Your task to perform on an android device: turn on javascript in the chrome app Image 0: 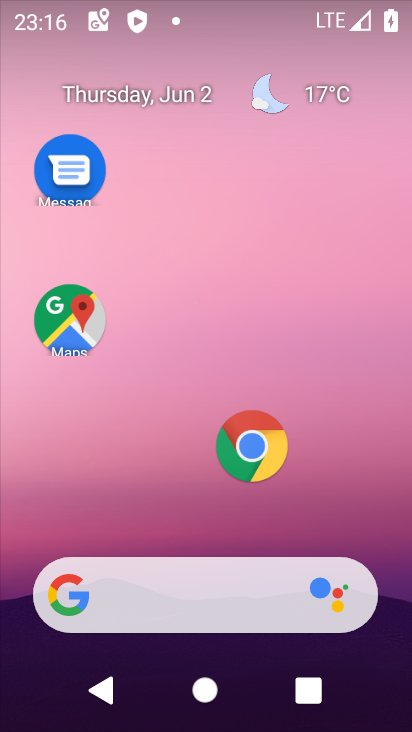
Step 0: drag from (350, 530) to (221, 74)
Your task to perform on an android device: turn on javascript in the chrome app Image 1: 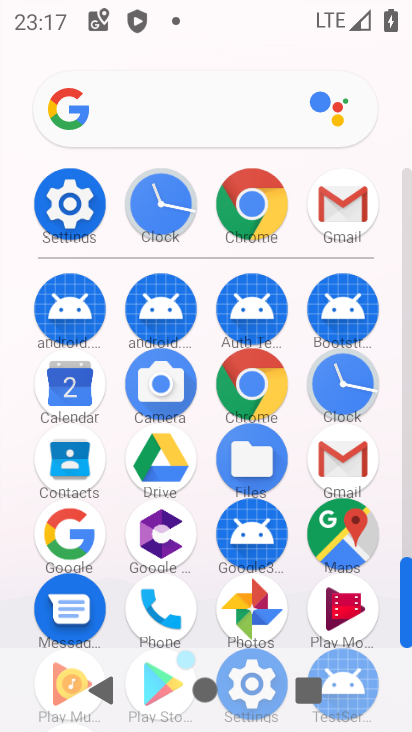
Step 1: click (228, 187)
Your task to perform on an android device: turn on javascript in the chrome app Image 2: 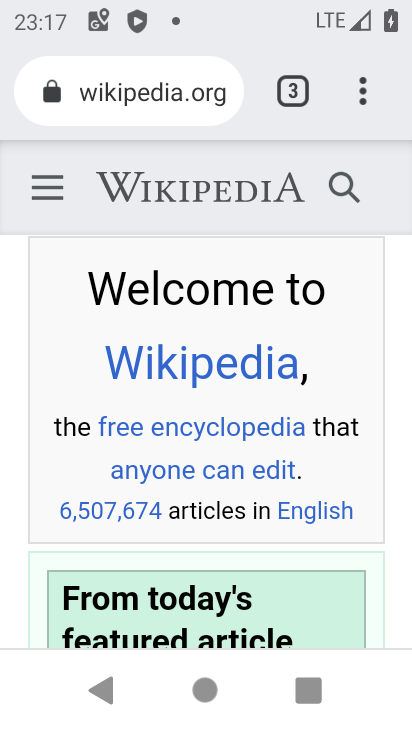
Step 2: drag from (346, 95) to (179, 457)
Your task to perform on an android device: turn on javascript in the chrome app Image 3: 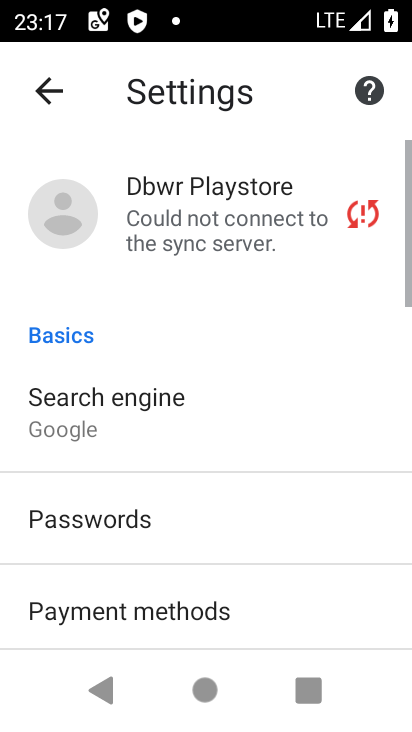
Step 3: drag from (208, 490) to (220, 91)
Your task to perform on an android device: turn on javascript in the chrome app Image 4: 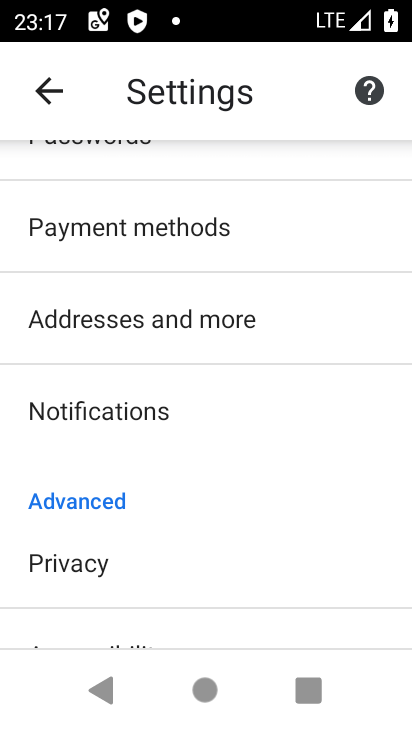
Step 4: drag from (248, 335) to (252, 205)
Your task to perform on an android device: turn on javascript in the chrome app Image 5: 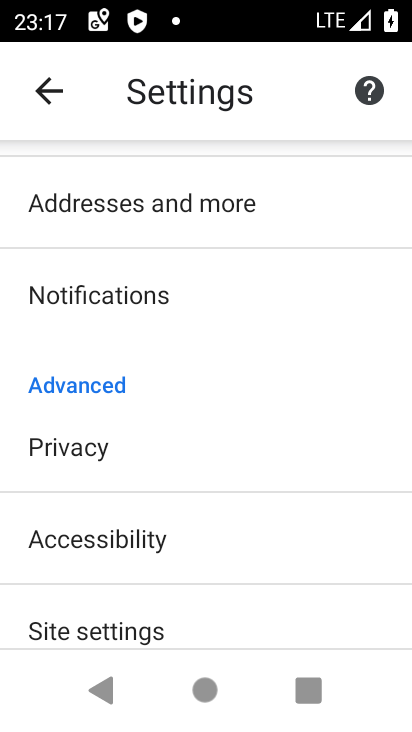
Step 5: click (171, 604)
Your task to perform on an android device: turn on javascript in the chrome app Image 6: 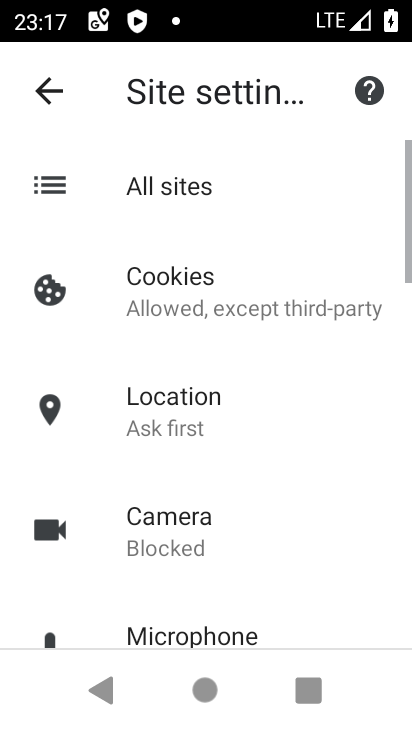
Step 6: drag from (179, 579) to (282, 106)
Your task to perform on an android device: turn on javascript in the chrome app Image 7: 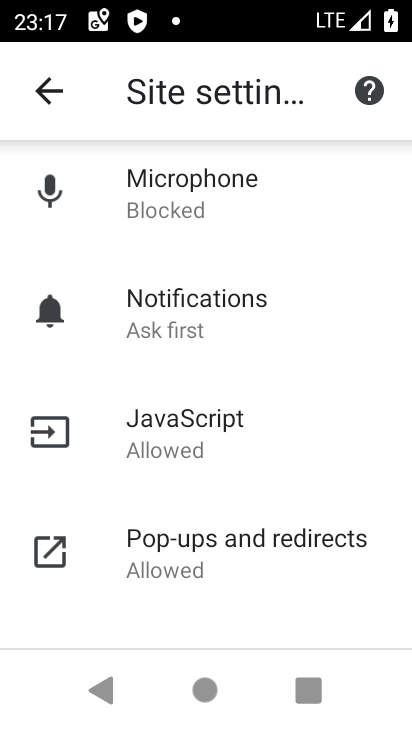
Step 7: click (212, 430)
Your task to perform on an android device: turn on javascript in the chrome app Image 8: 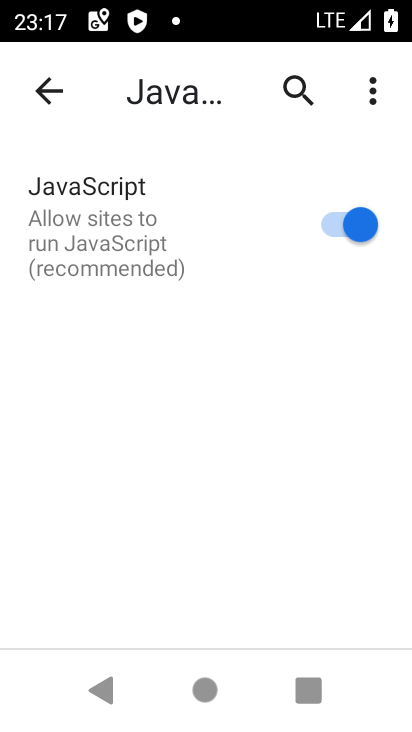
Step 8: task complete